Your task to perform on an android device: Show me popular games on the Play Store Image 0: 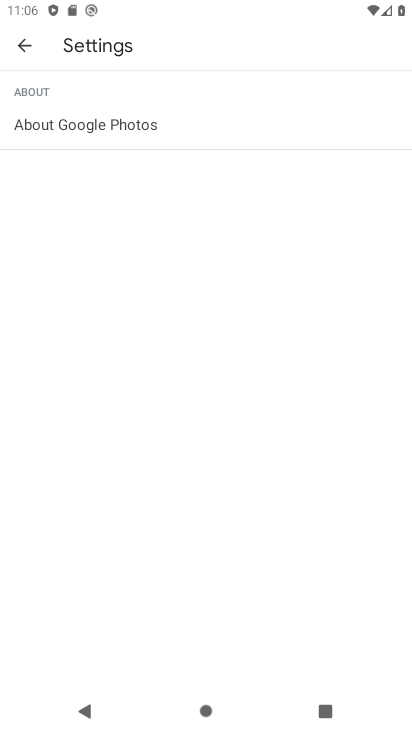
Step 0: press home button
Your task to perform on an android device: Show me popular games on the Play Store Image 1: 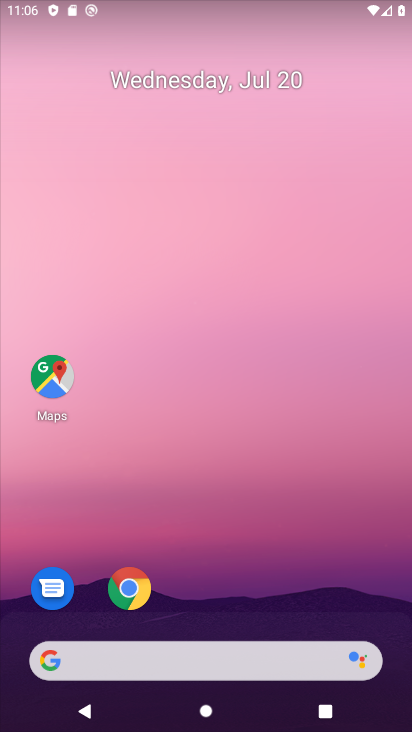
Step 1: drag from (274, 609) to (212, 166)
Your task to perform on an android device: Show me popular games on the Play Store Image 2: 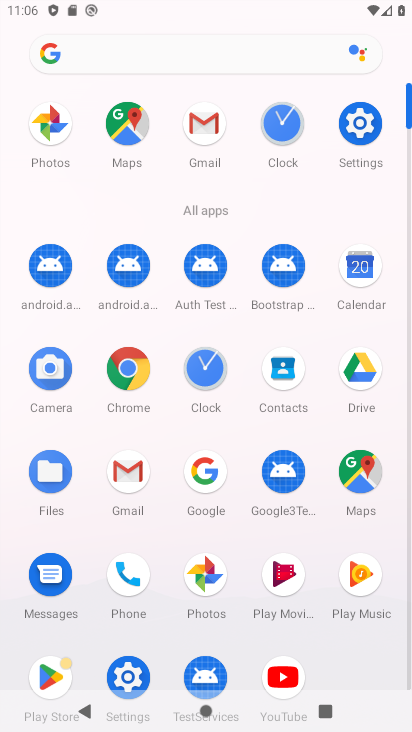
Step 2: click (39, 664)
Your task to perform on an android device: Show me popular games on the Play Store Image 3: 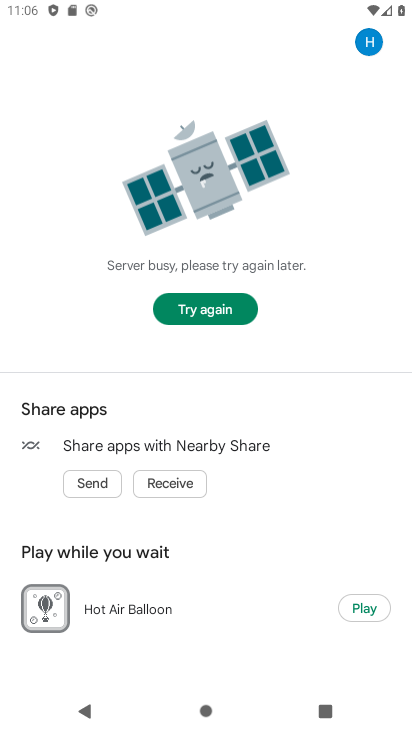
Step 3: click (215, 320)
Your task to perform on an android device: Show me popular games on the Play Store Image 4: 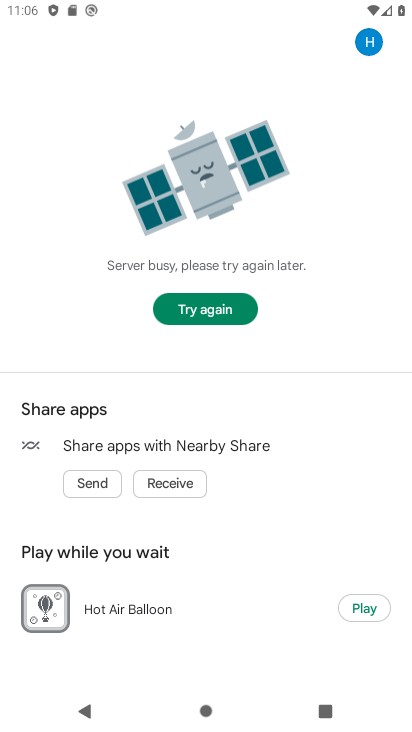
Step 4: task complete